Your task to perform on an android device: turn on javascript in the chrome app Image 0: 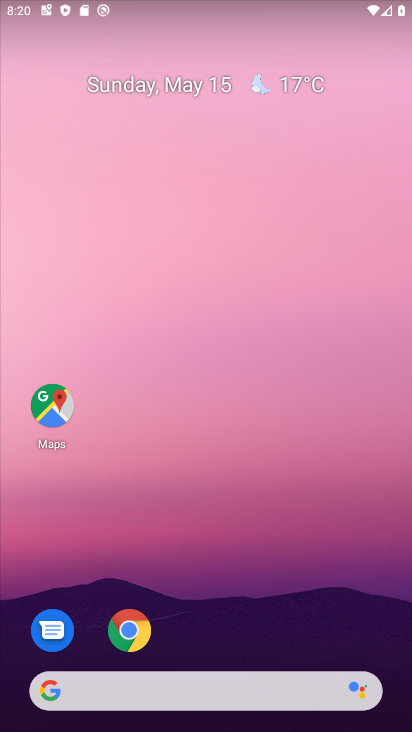
Step 0: drag from (299, 570) to (298, 58)
Your task to perform on an android device: turn on javascript in the chrome app Image 1: 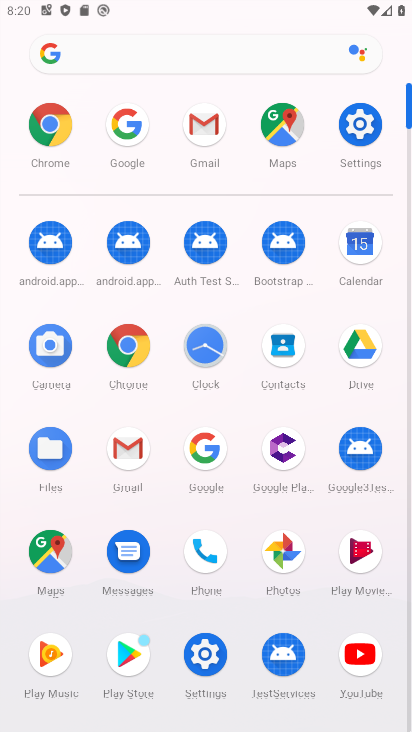
Step 1: click (53, 124)
Your task to perform on an android device: turn on javascript in the chrome app Image 2: 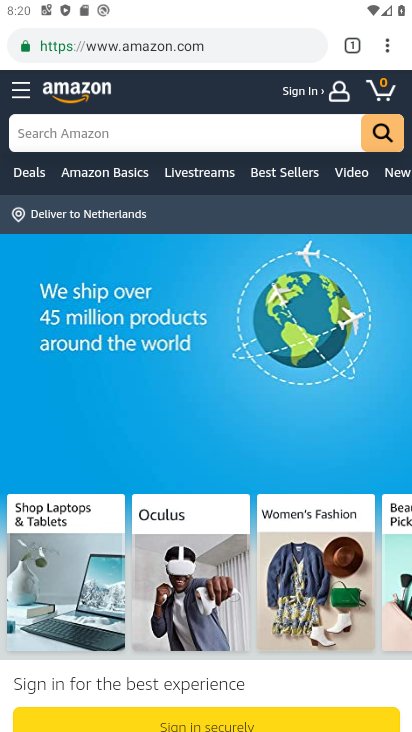
Step 2: drag from (387, 55) to (242, 510)
Your task to perform on an android device: turn on javascript in the chrome app Image 3: 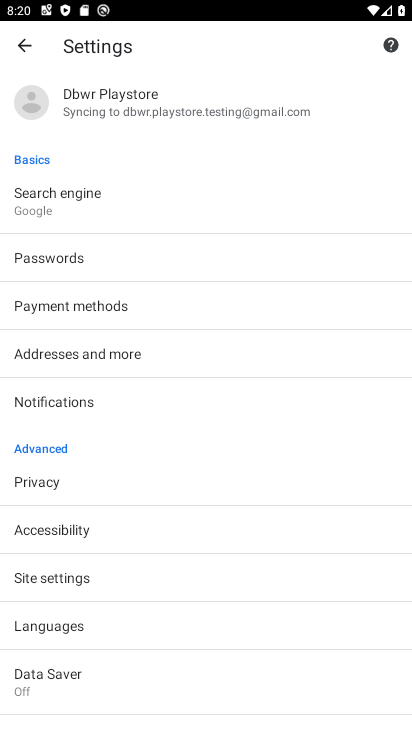
Step 3: click (74, 574)
Your task to perform on an android device: turn on javascript in the chrome app Image 4: 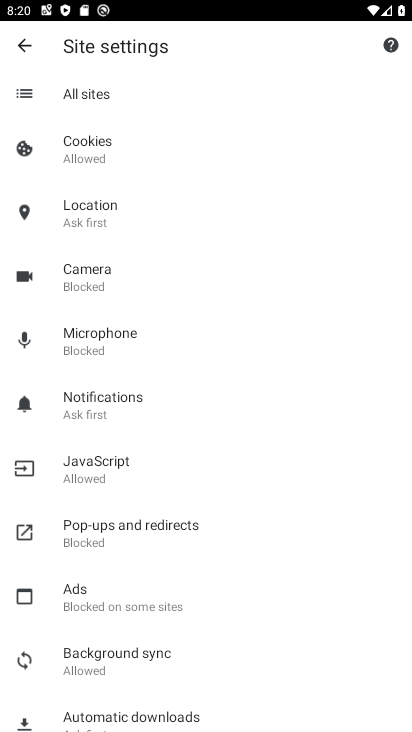
Step 4: click (72, 471)
Your task to perform on an android device: turn on javascript in the chrome app Image 5: 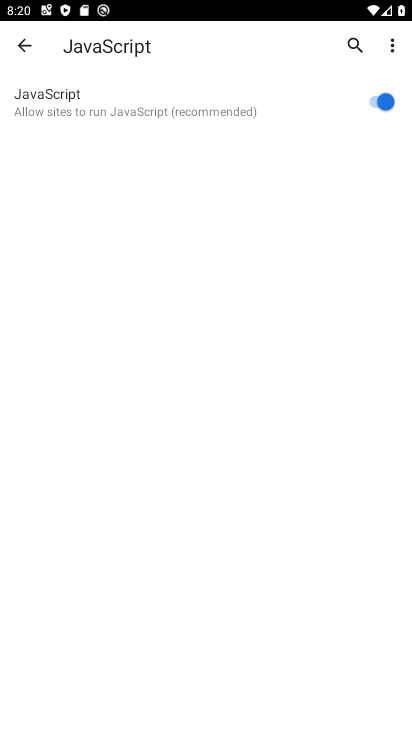
Step 5: task complete